Your task to perform on an android device: turn on the 24-hour format for clock Image 0: 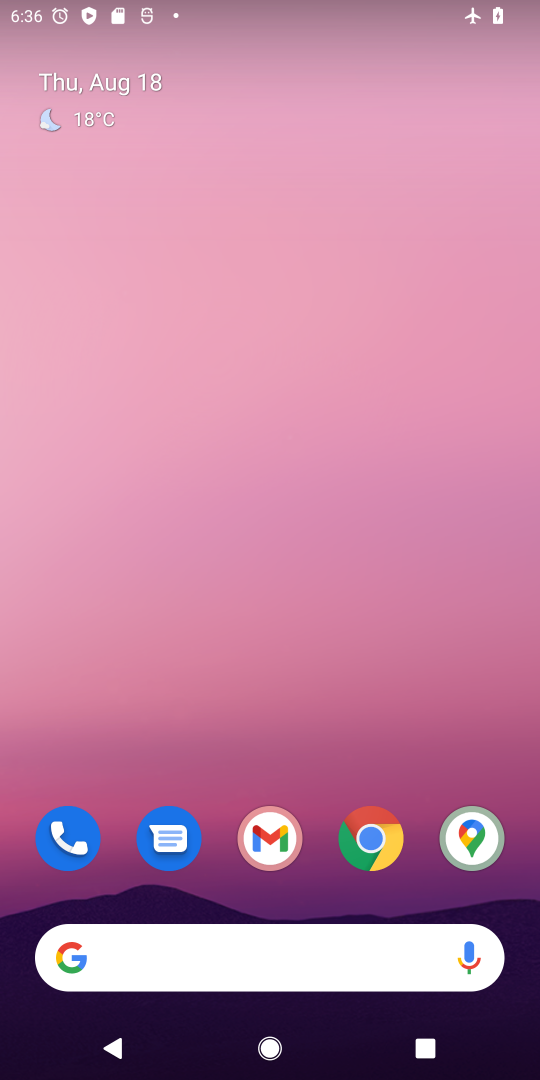
Step 0: press home button
Your task to perform on an android device: turn on the 24-hour format for clock Image 1: 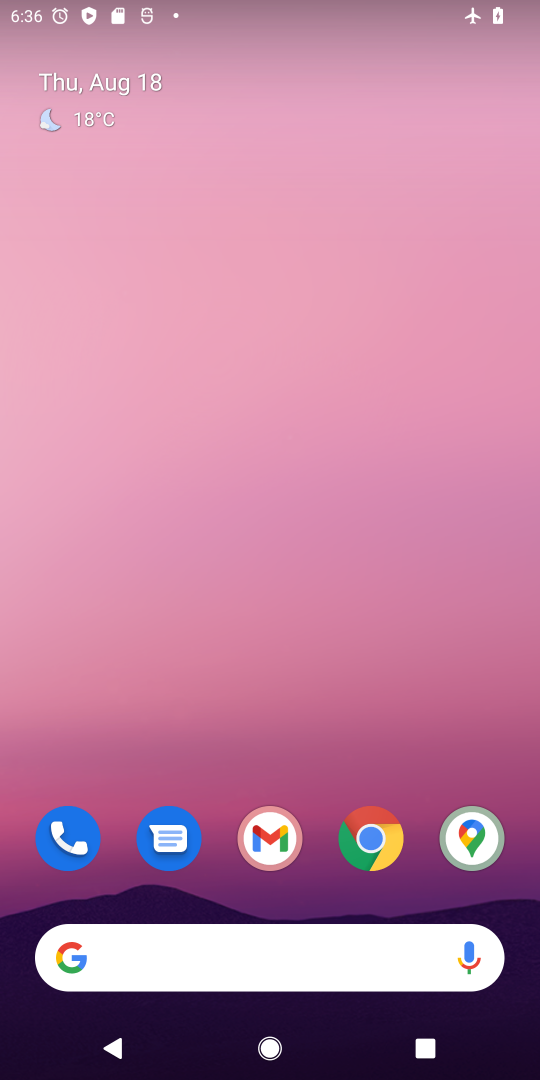
Step 1: drag from (425, 882) to (341, 76)
Your task to perform on an android device: turn on the 24-hour format for clock Image 2: 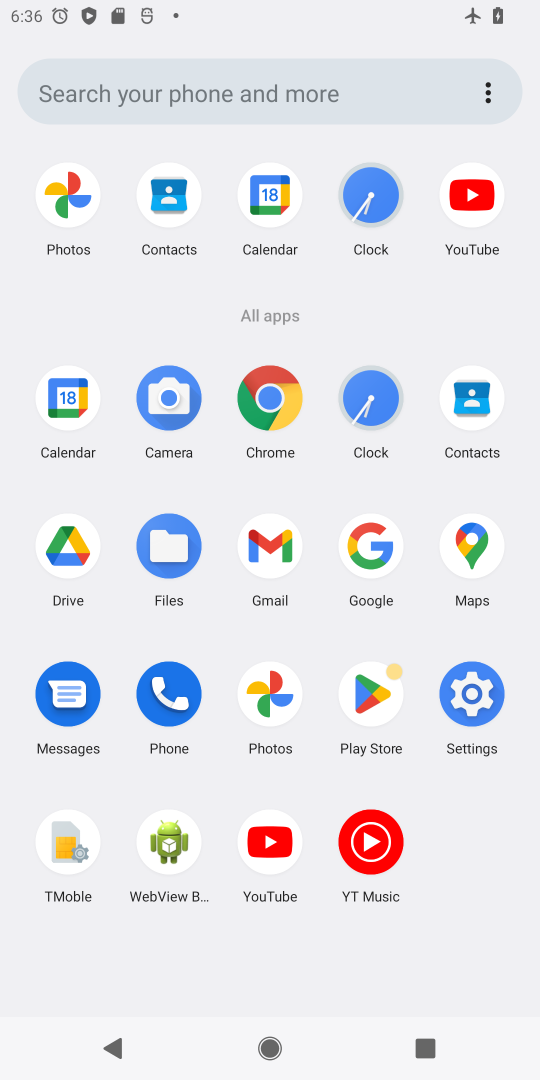
Step 2: click (464, 696)
Your task to perform on an android device: turn on the 24-hour format for clock Image 3: 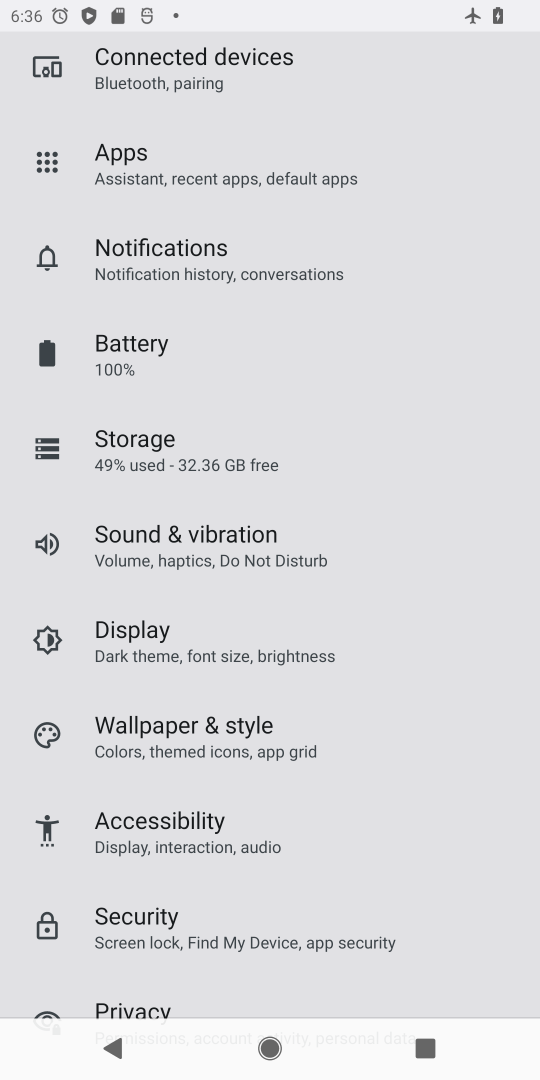
Step 3: drag from (426, 970) to (357, 250)
Your task to perform on an android device: turn on the 24-hour format for clock Image 4: 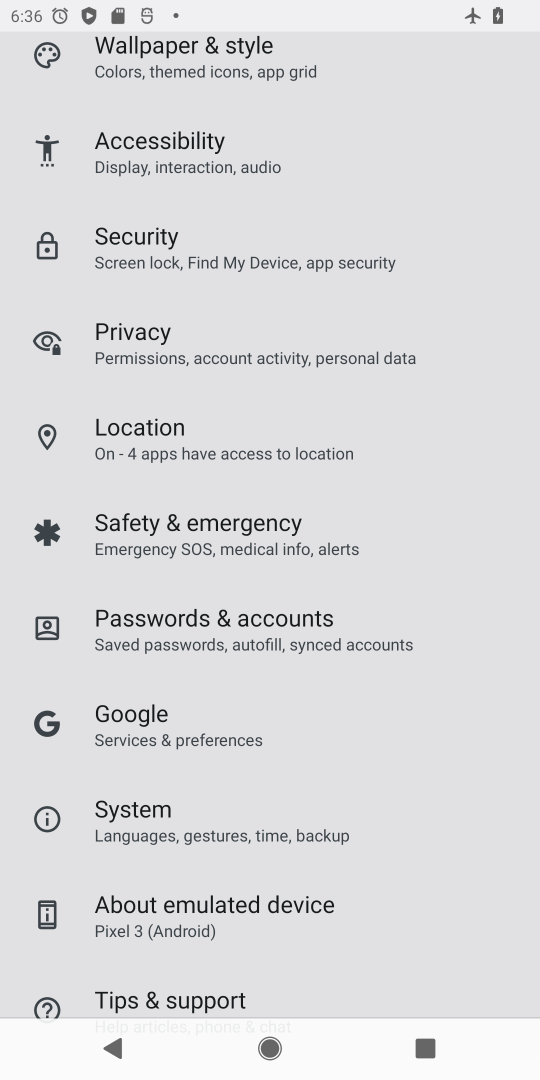
Step 4: click (142, 819)
Your task to perform on an android device: turn on the 24-hour format for clock Image 5: 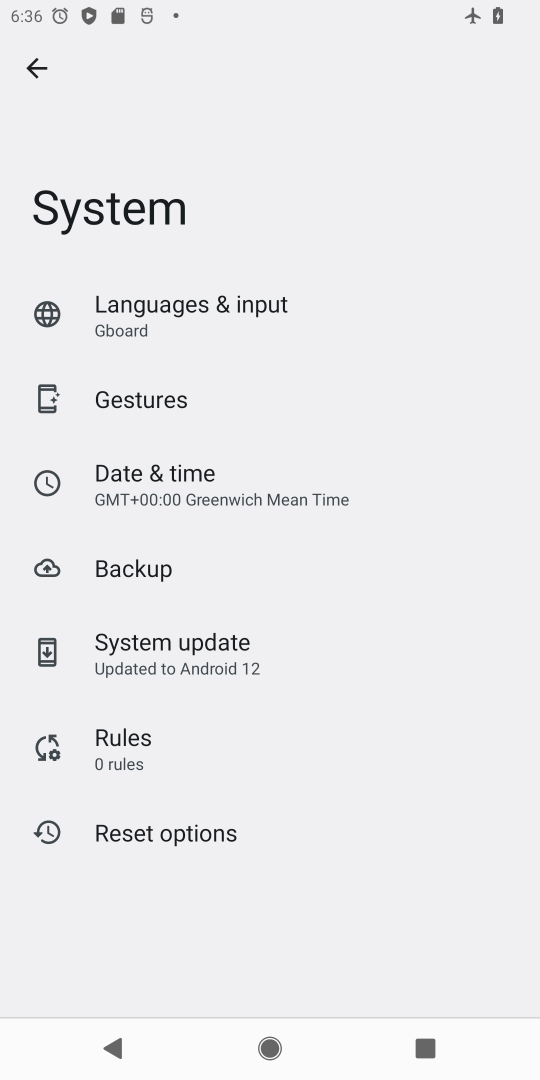
Step 5: click (132, 491)
Your task to perform on an android device: turn on the 24-hour format for clock Image 6: 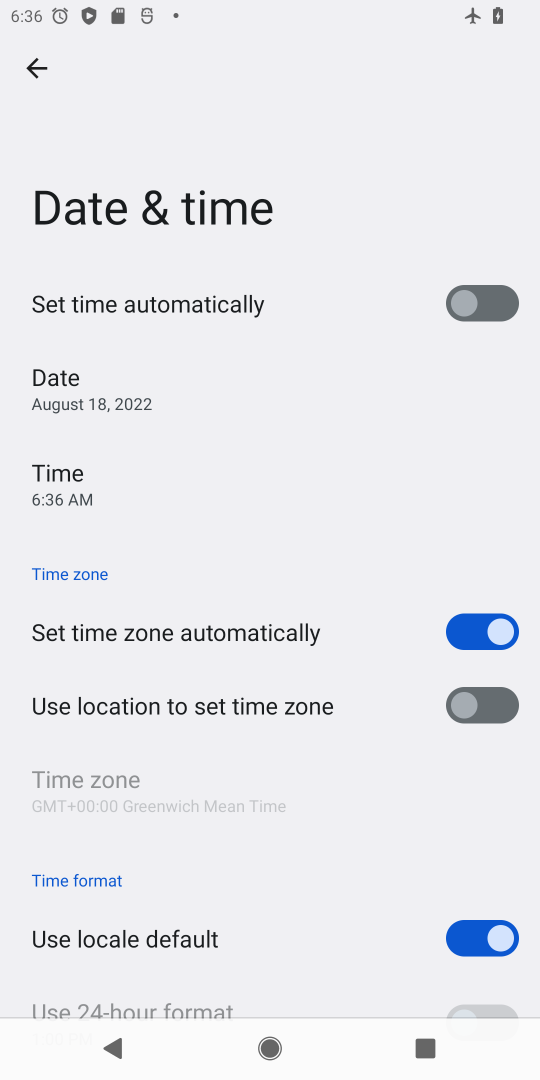
Step 6: drag from (392, 858) to (363, 303)
Your task to perform on an android device: turn on the 24-hour format for clock Image 7: 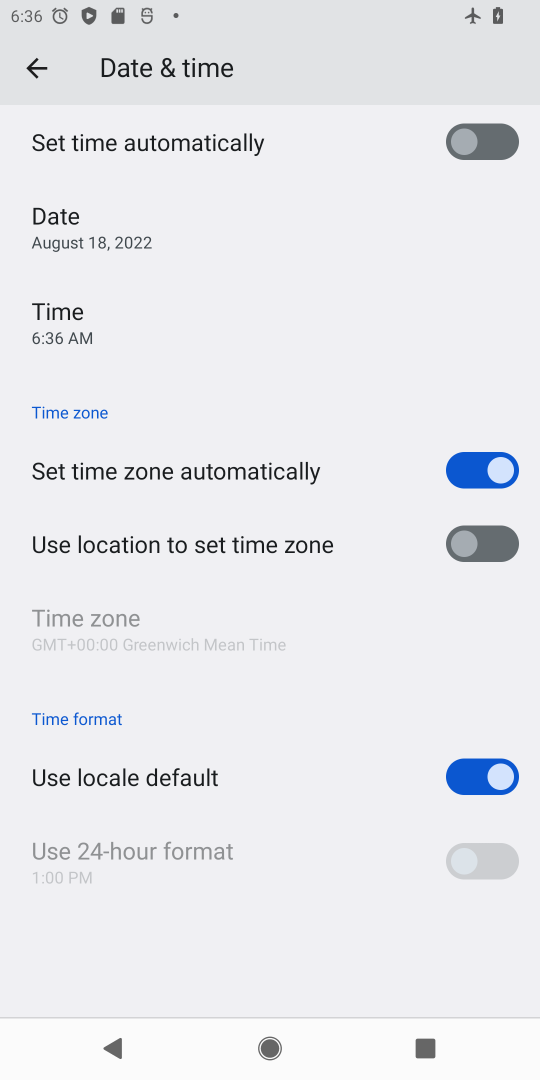
Step 7: click (499, 766)
Your task to perform on an android device: turn on the 24-hour format for clock Image 8: 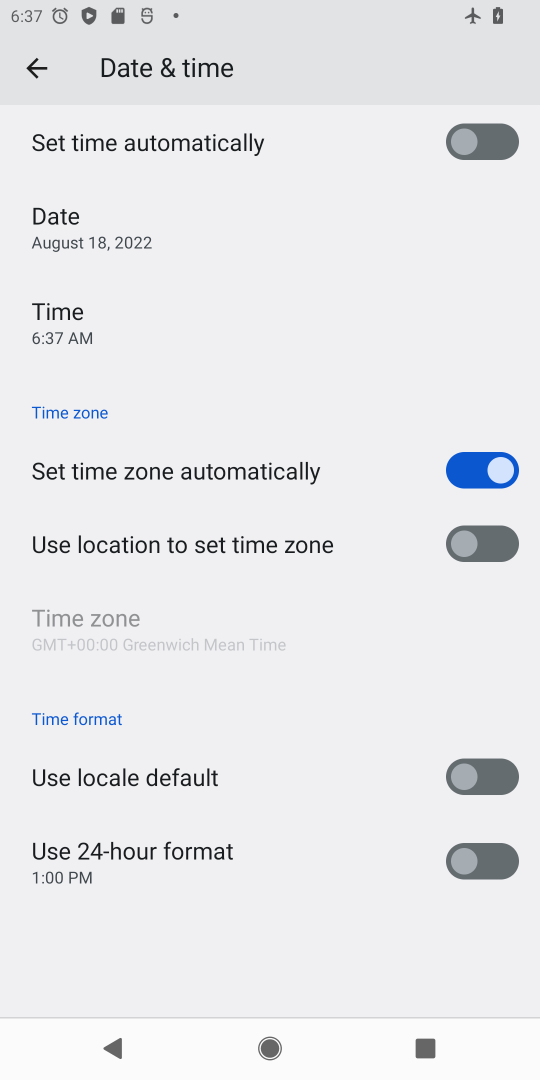
Step 8: click (466, 851)
Your task to perform on an android device: turn on the 24-hour format for clock Image 9: 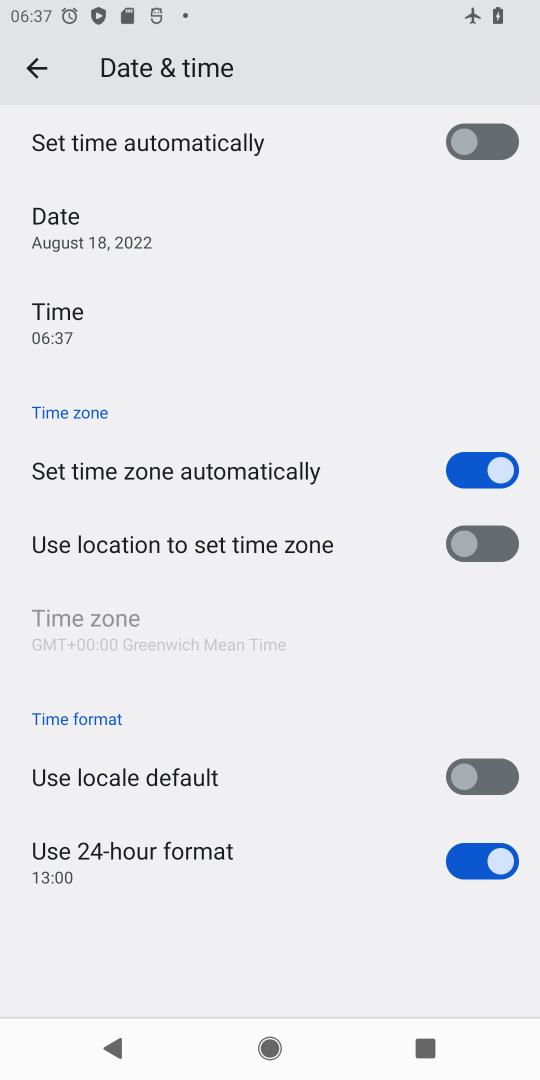
Step 9: task complete